Your task to perform on an android device: Go to Android settings Image 0: 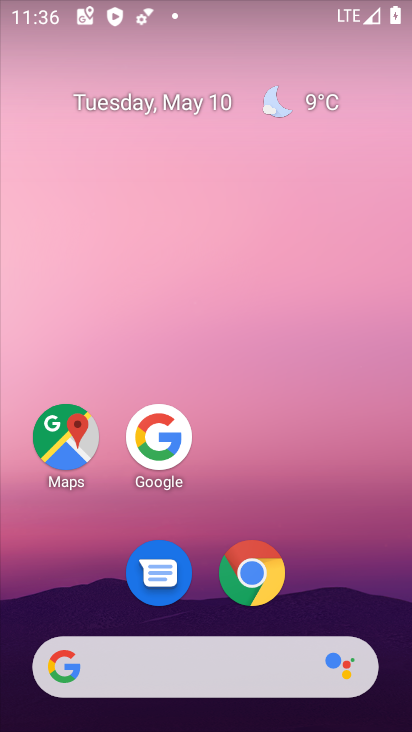
Step 0: drag from (202, 595) to (350, 59)
Your task to perform on an android device: Go to Android settings Image 1: 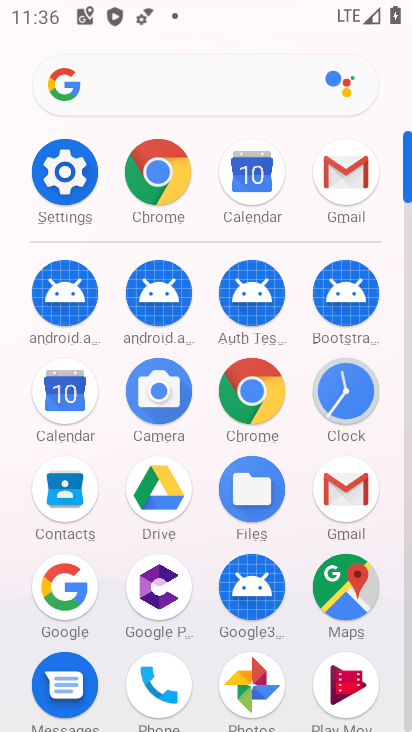
Step 1: click (62, 172)
Your task to perform on an android device: Go to Android settings Image 2: 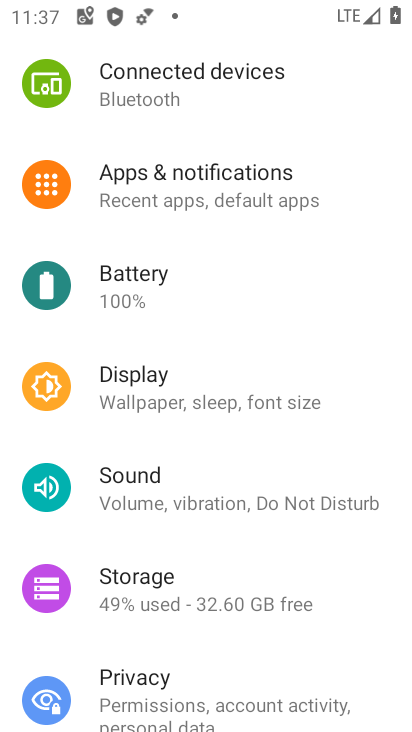
Step 2: task complete